Your task to perform on an android device: all mails in gmail Image 0: 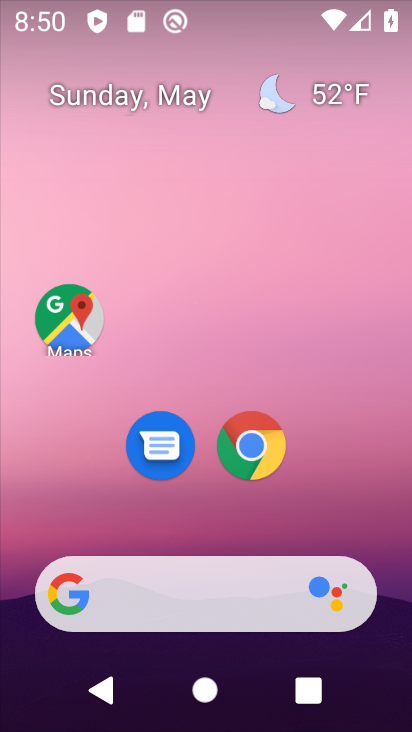
Step 0: drag from (334, 499) to (228, 13)
Your task to perform on an android device: all mails in gmail Image 1: 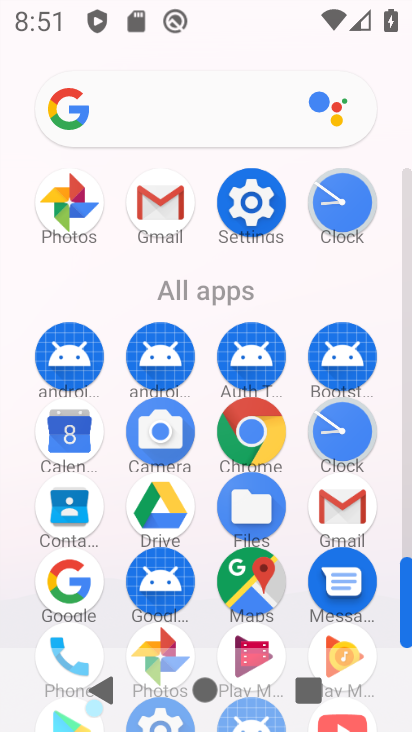
Step 1: click (160, 212)
Your task to perform on an android device: all mails in gmail Image 2: 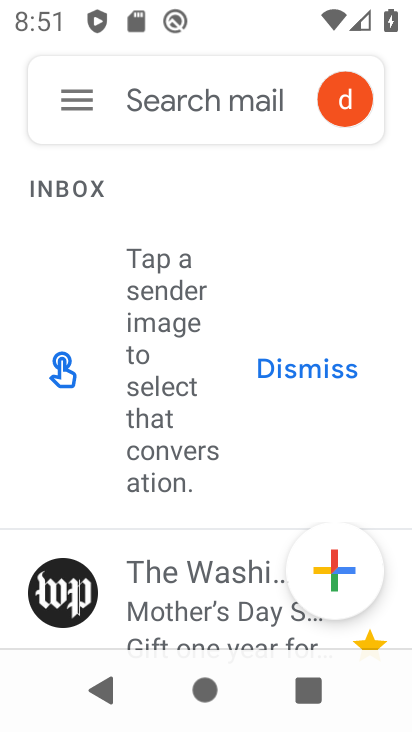
Step 2: click (75, 104)
Your task to perform on an android device: all mails in gmail Image 3: 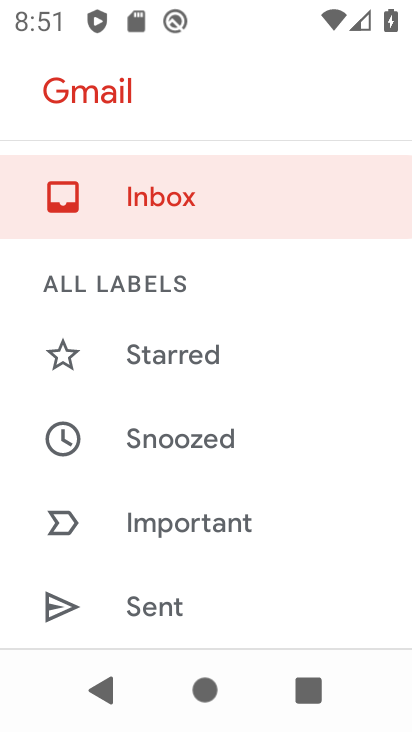
Step 3: drag from (215, 584) to (190, 332)
Your task to perform on an android device: all mails in gmail Image 4: 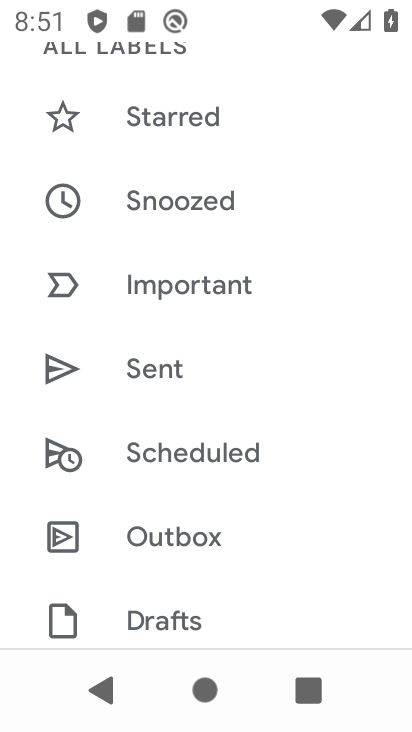
Step 4: click (191, 561)
Your task to perform on an android device: all mails in gmail Image 5: 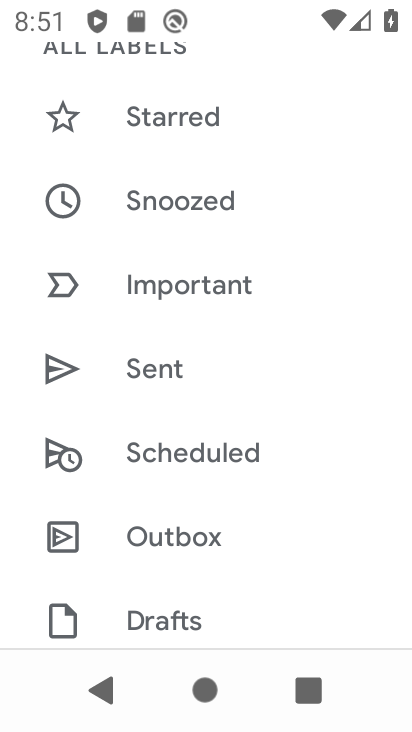
Step 5: drag from (191, 561) to (184, 281)
Your task to perform on an android device: all mails in gmail Image 6: 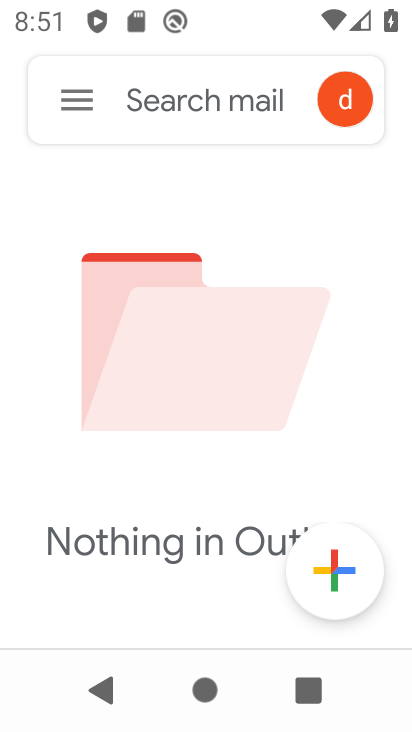
Step 6: click (81, 89)
Your task to perform on an android device: all mails in gmail Image 7: 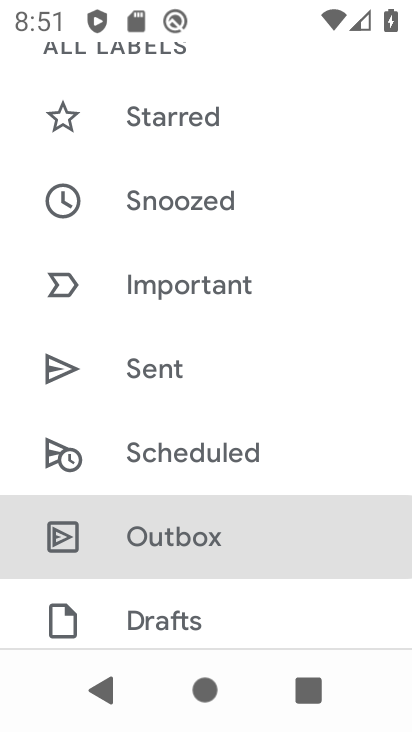
Step 7: drag from (177, 592) to (209, 275)
Your task to perform on an android device: all mails in gmail Image 8: 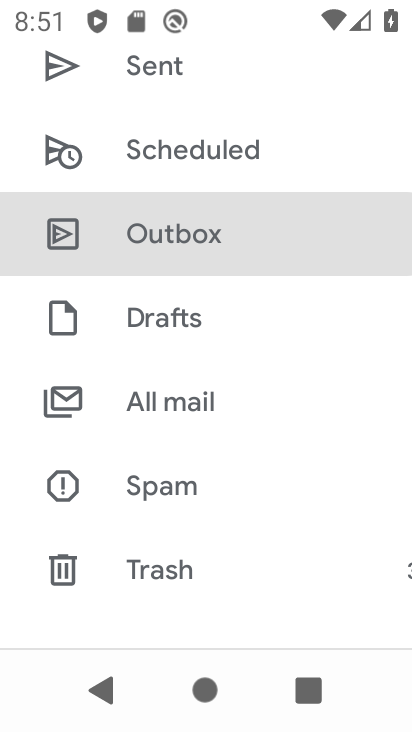
Step 8: click (155, 412)
Your task to perform on an android device: all mails in gmail Image 9: 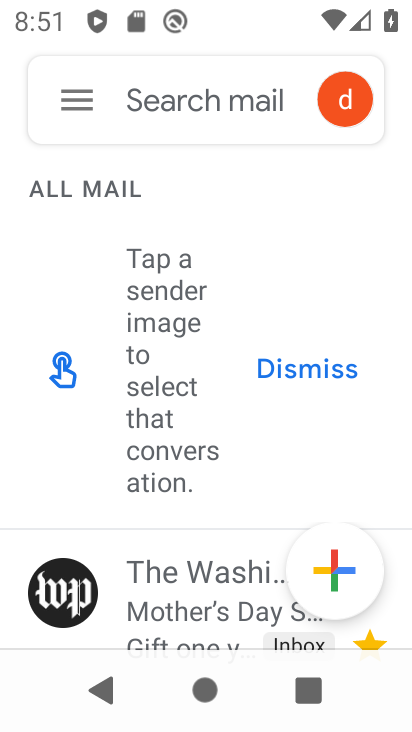
Step 9: task complete